Your task to perform on an android device: Show me recent news Image 0: 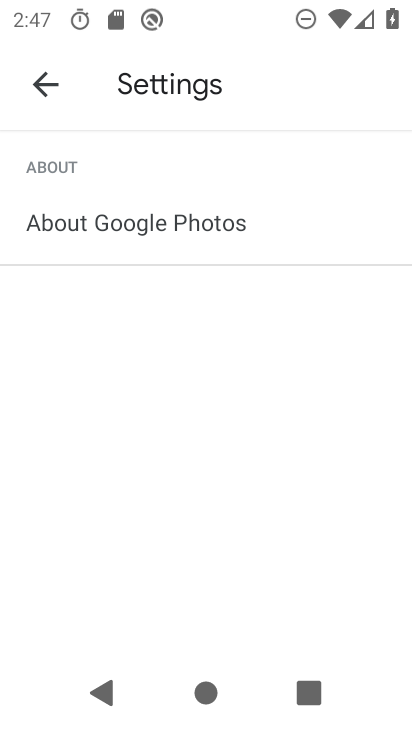
Step 0: press home button
Your task to perform on an android device: Show me recent news Image 1: 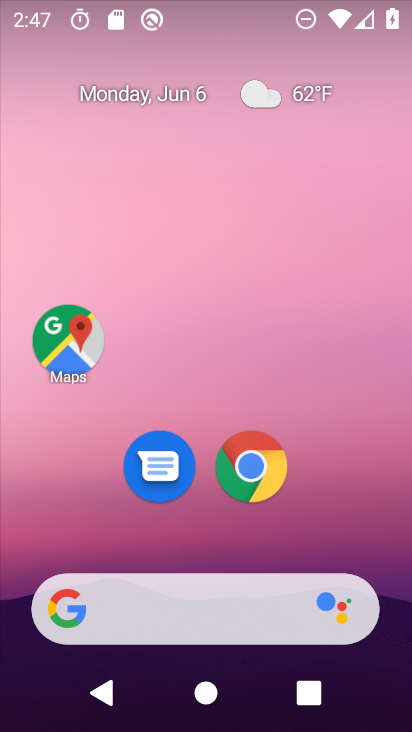
Step 1: drag from (213, 533) to (284, 329)
Your task to perform on an android device: Show me recent news Image 2: 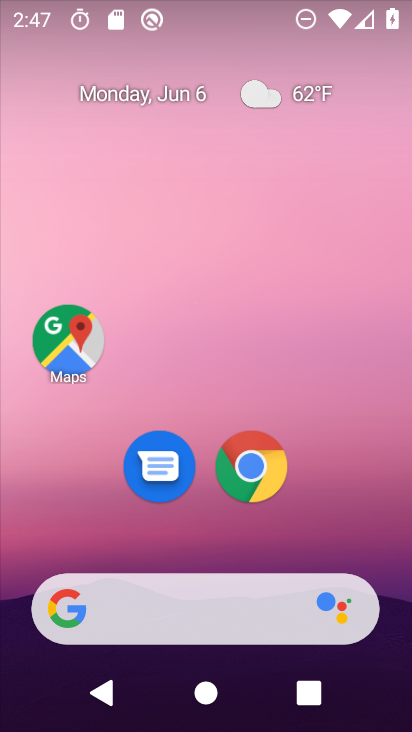
Step 2: click (188, 609)
Your task to perform on an android device: Show me recent news Image 3: 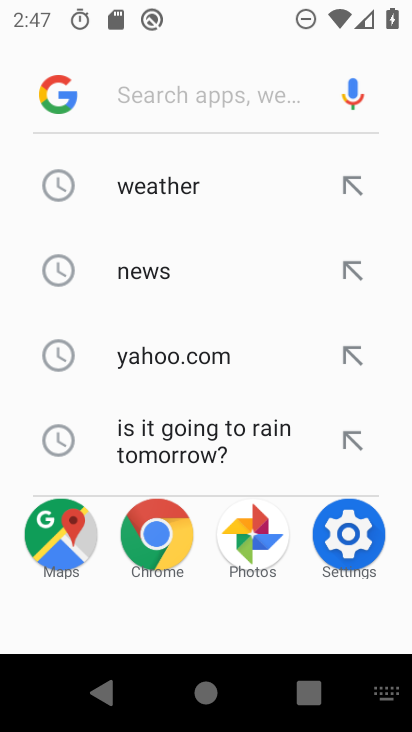
Step 3: click (195, 97)
Your task to perform on an android device: Show me recent news Image 4: 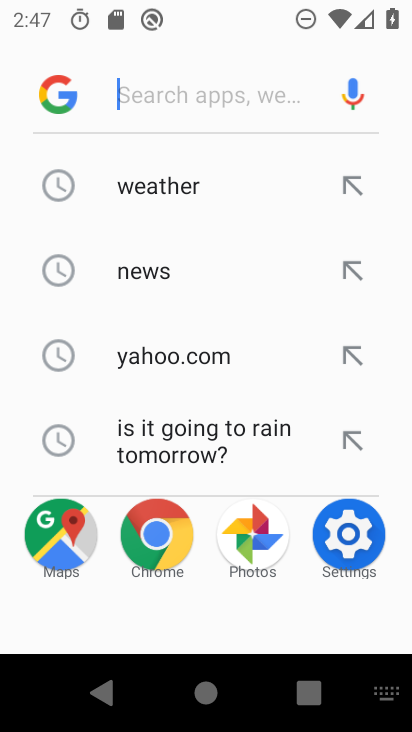
Step 4: type "recent news"
Your task to perform on an android device: Show me recent news Image 5: 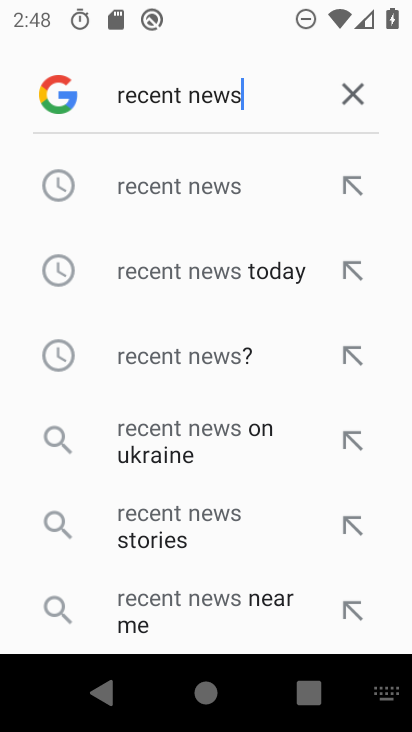
Step 5: click (201, 195)
Your task to perform on an android device: Show me recent news Image 6: 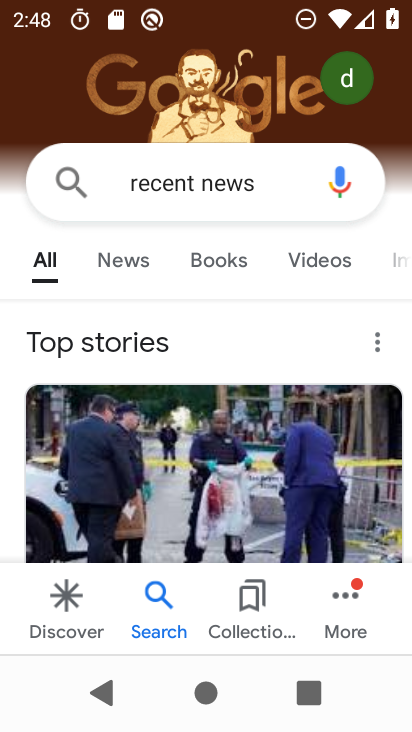
Step 6: task complete